Your task to perform on an android device: open wifi settings Image 0: 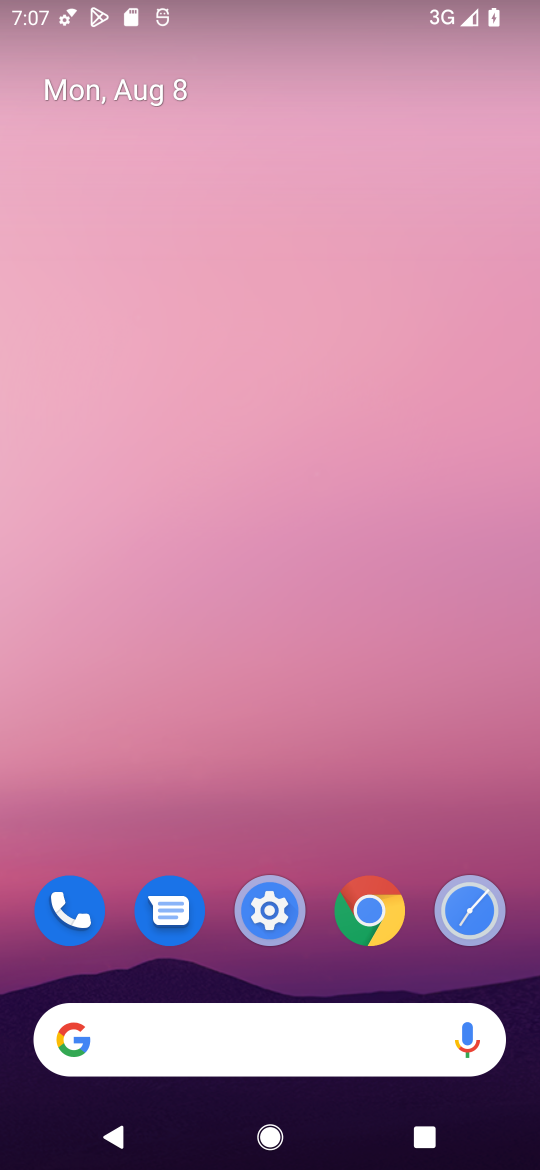
Step 0: click (273, 913)
Your task to perform on an android device: open wifi settings Image 1: 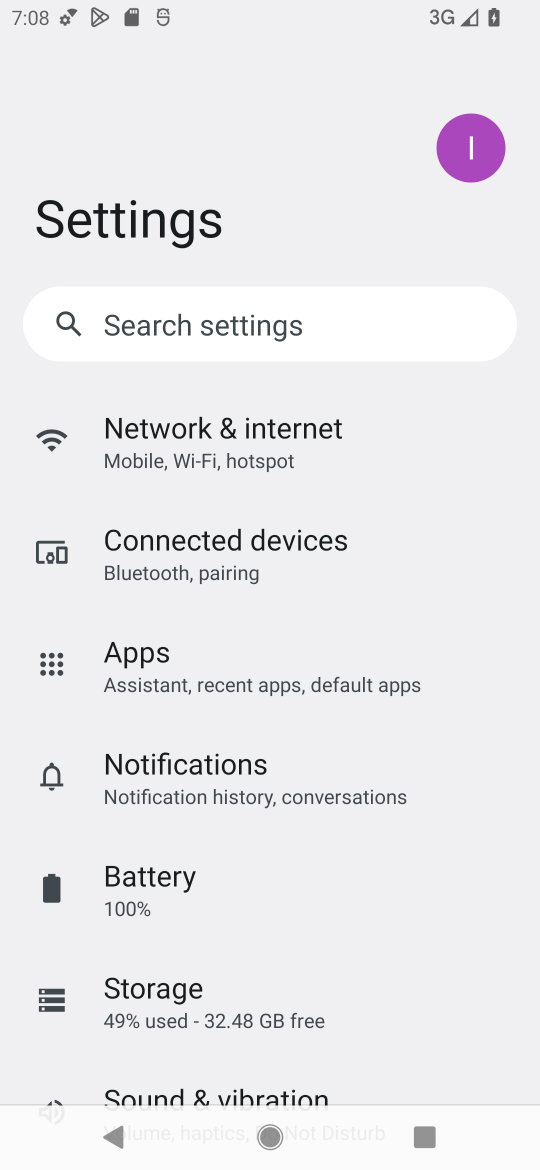
Step 1: click (226, 466)
Your task to perform on an android device: open wifi settings Image 2: 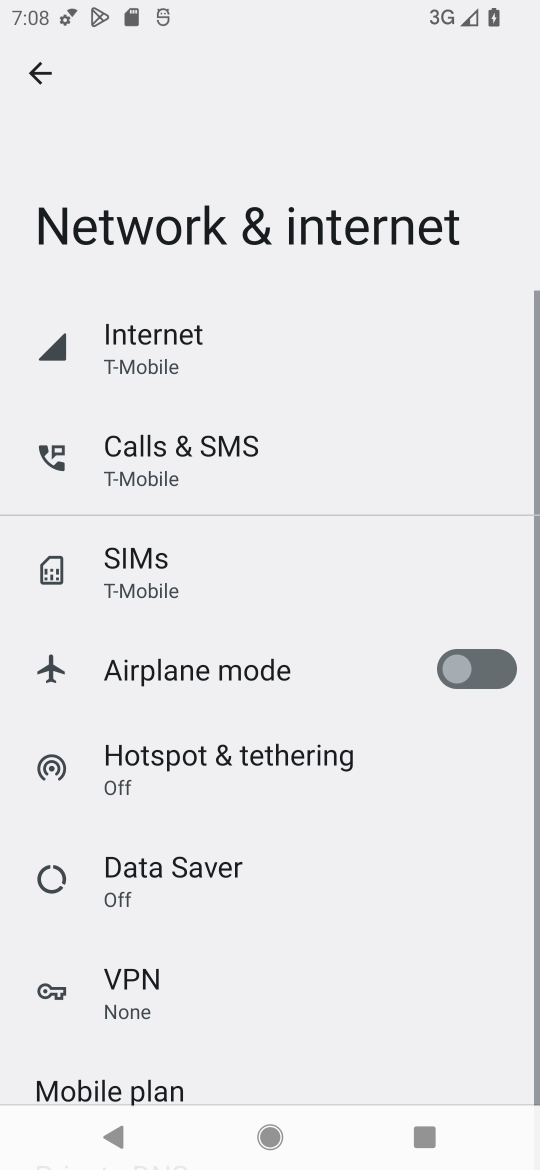
Step 2: task complete